Your task to perform on an android device: Open settings on Google Maps Image 0: 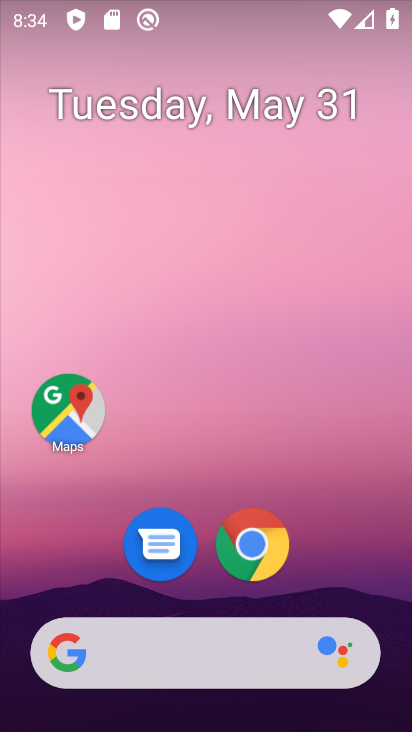
Step 0: drag from (327, 569) to (230, 28)
Your task to perform on an android device: Open settings on Google Maps Image 1: 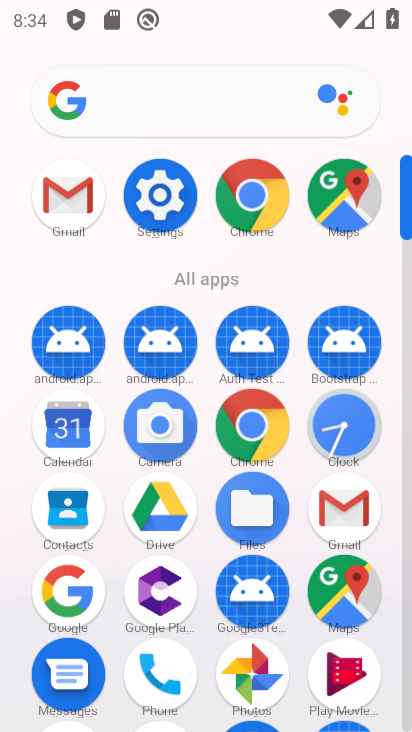
Step 1: click (331, 210)
Your task to perform on an android device: Open settings on Google Maps Image 2: 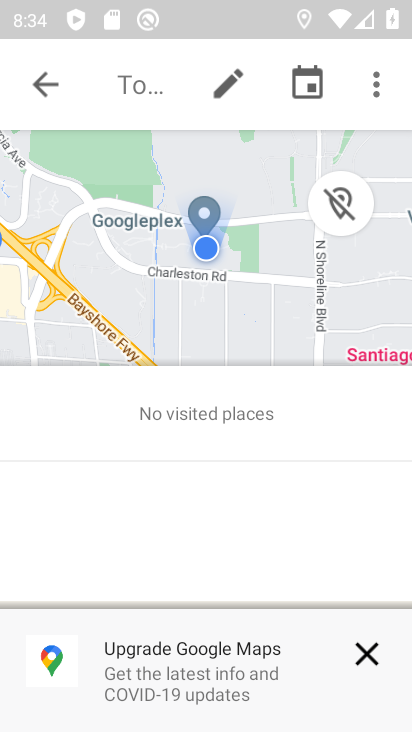
Step 2: click (42, 81)
Your task to perform on an android device: Open settings on Google Maps Image 3: 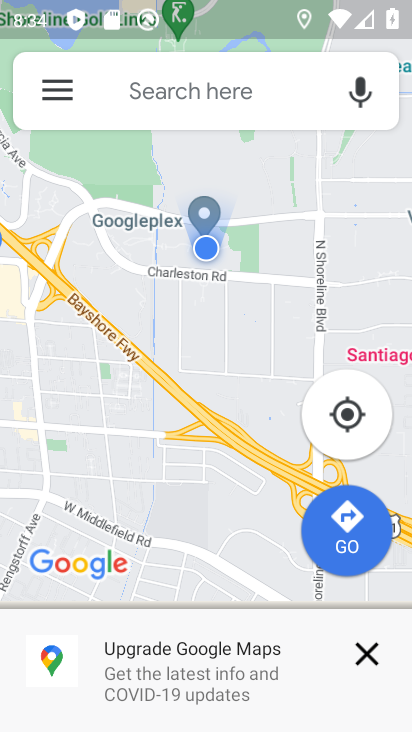
Step 3: click (43, 81)
Your task to perform on an android device: Open settings on Google Maps Image 4: 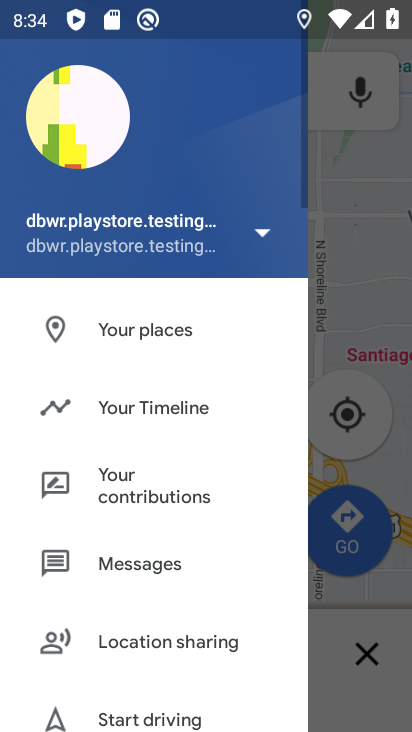
Step 4: drag from (175, 606) to (162, 96)
Your task to perform on an android device: Open settings on Google Maps Image 5: 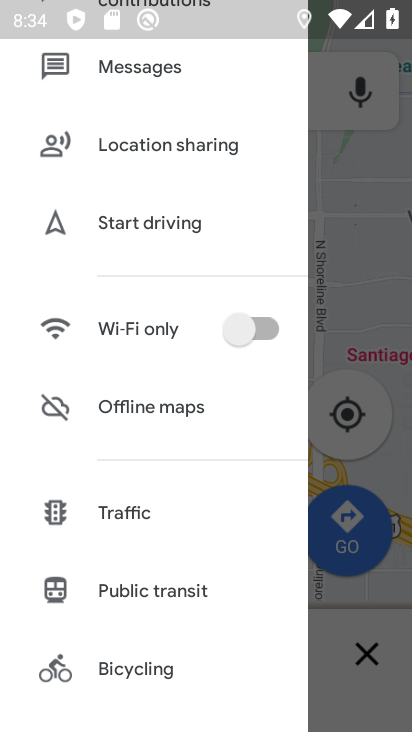
Step 5: drag from (128, 579) to (132, 16)
Your task to perform on an android device: Open settings on Google Maps Image 6: 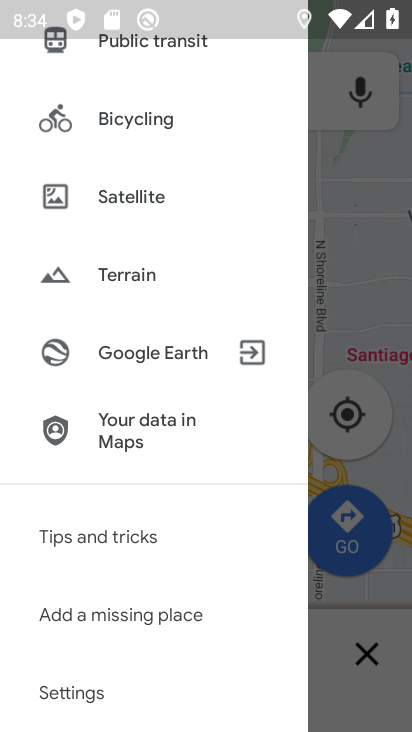
Step 6: click (131, 698)
Your task to perform on an android device: Open settings on Google Maps Image 7: 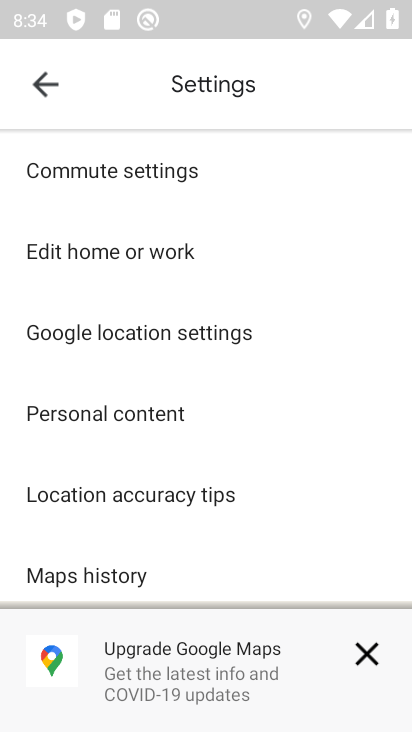
Step 7: task complete